Your task to perform on an android device: Add "usb-b" to the cart on bestbuy.com, then select checkout. Image 0: 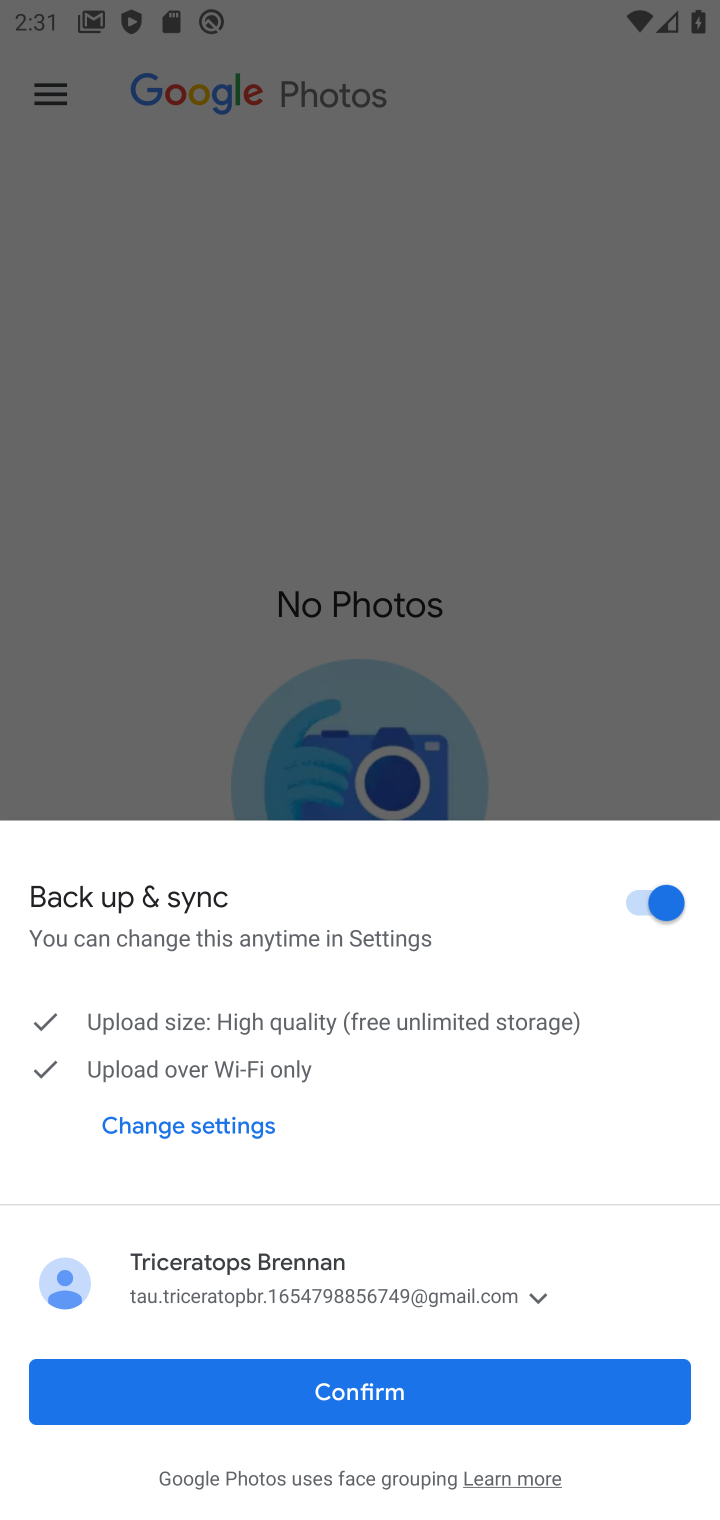
Step 0: press home button
Your task to perform on an android device: Add "usb-b" to the cart on bestbuy.com, then select checkout. Image 1: 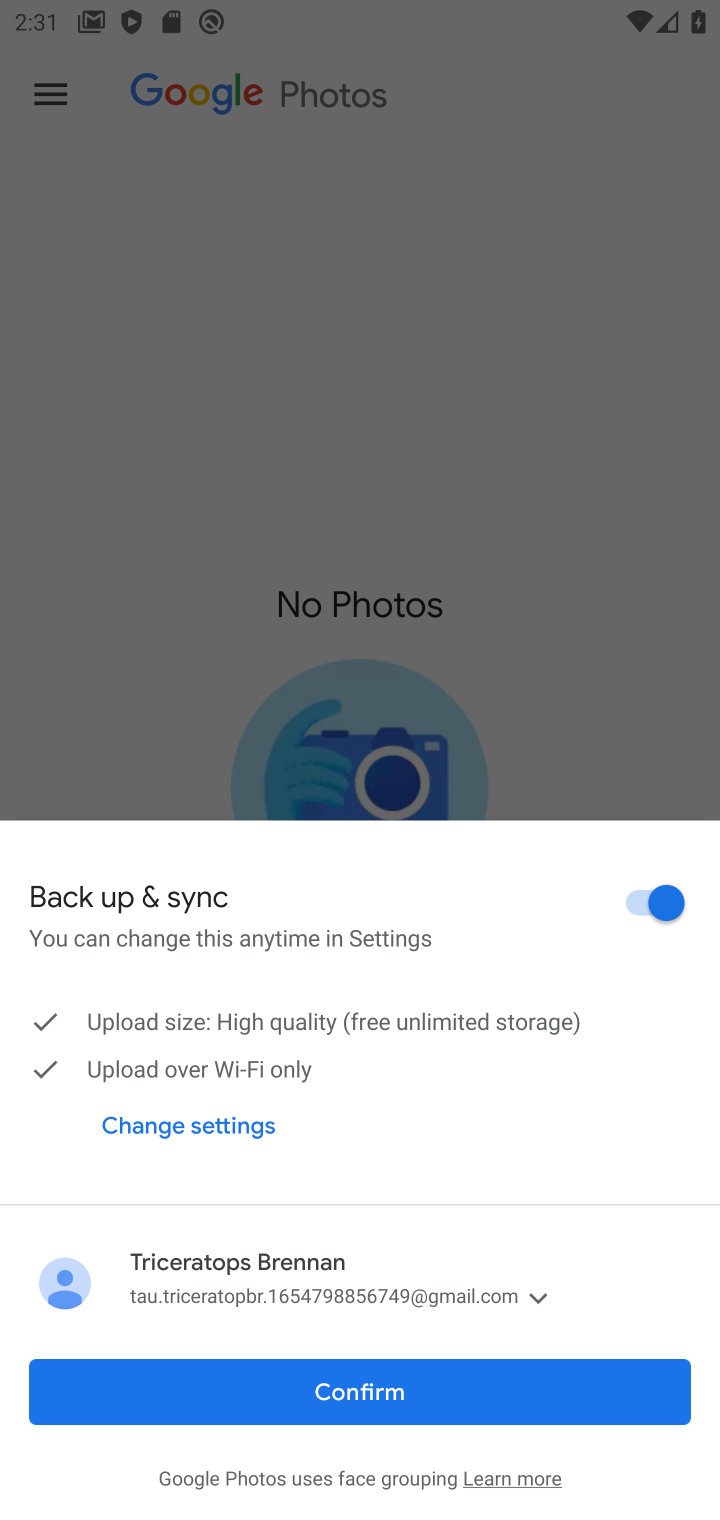
Step 1: press home button
Your task to perform on an android device: Add "usb-b" to the cart on bestbuy.com, then select checkout. Image 2: 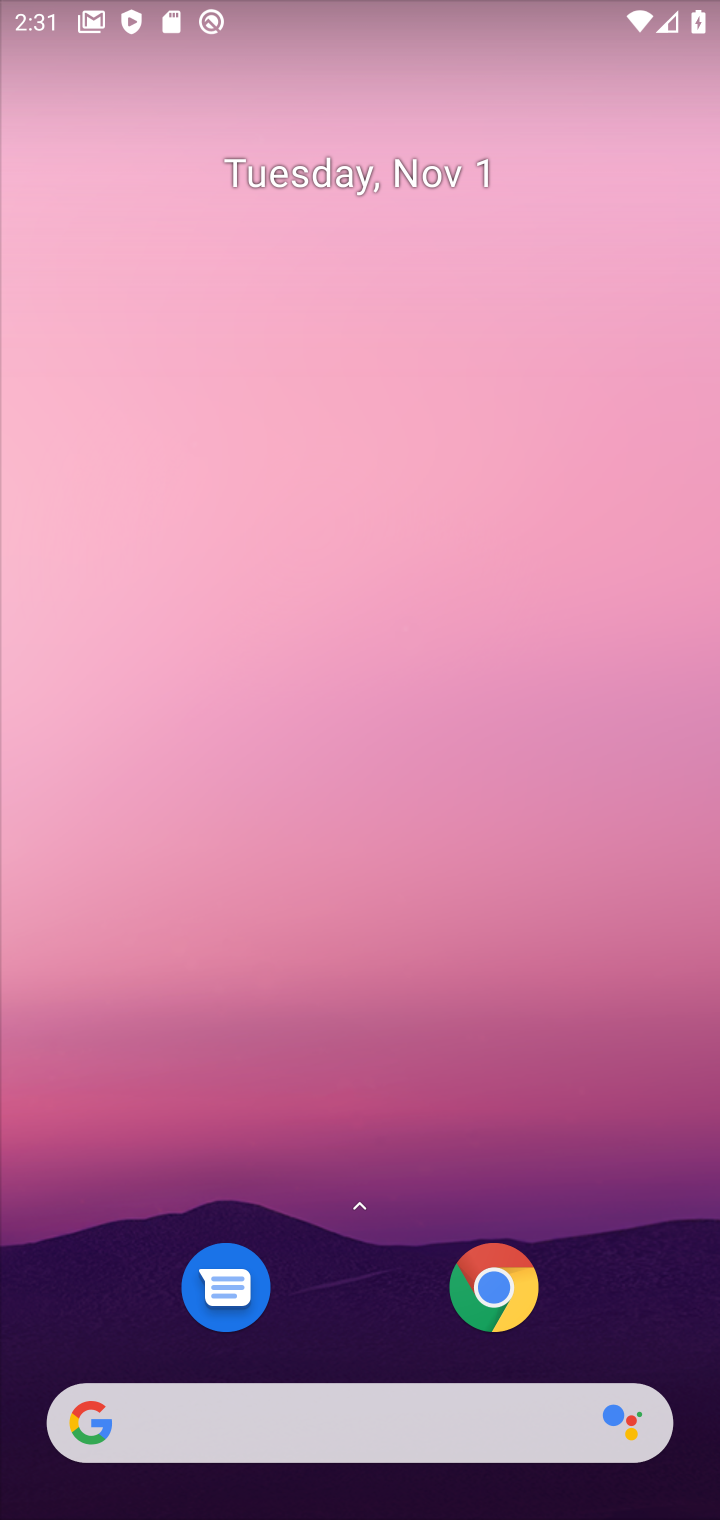
Step 2: drag from (335, 1259) to (411, 314)
Your task to perform on an android device: Add "usb-b" to the cart on bestbuy.com, then select checkout. Image 3: 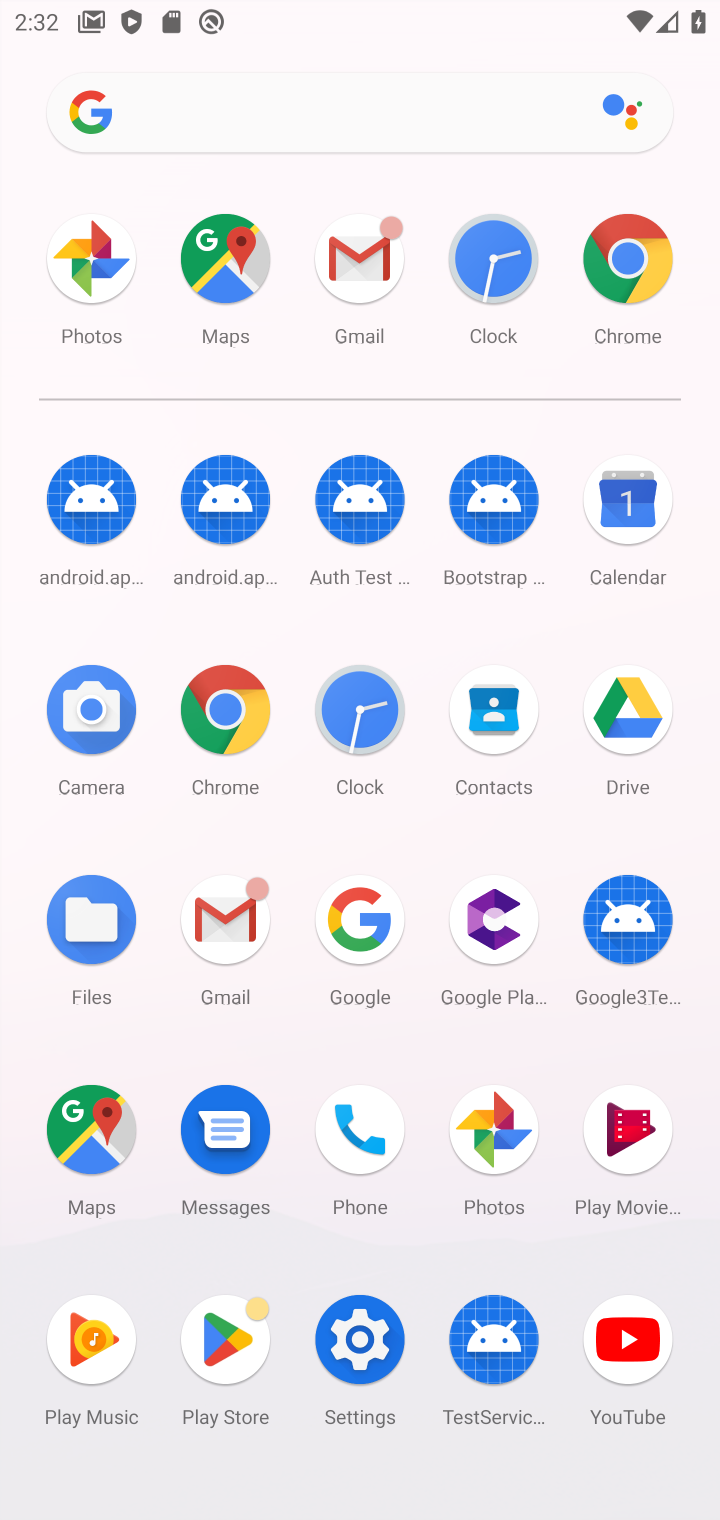
Step 3: click (235, 716)
Your task to perform on an android device: Add "usb-b" to the cart on bestbuy.com, then select checkout. Image 4: 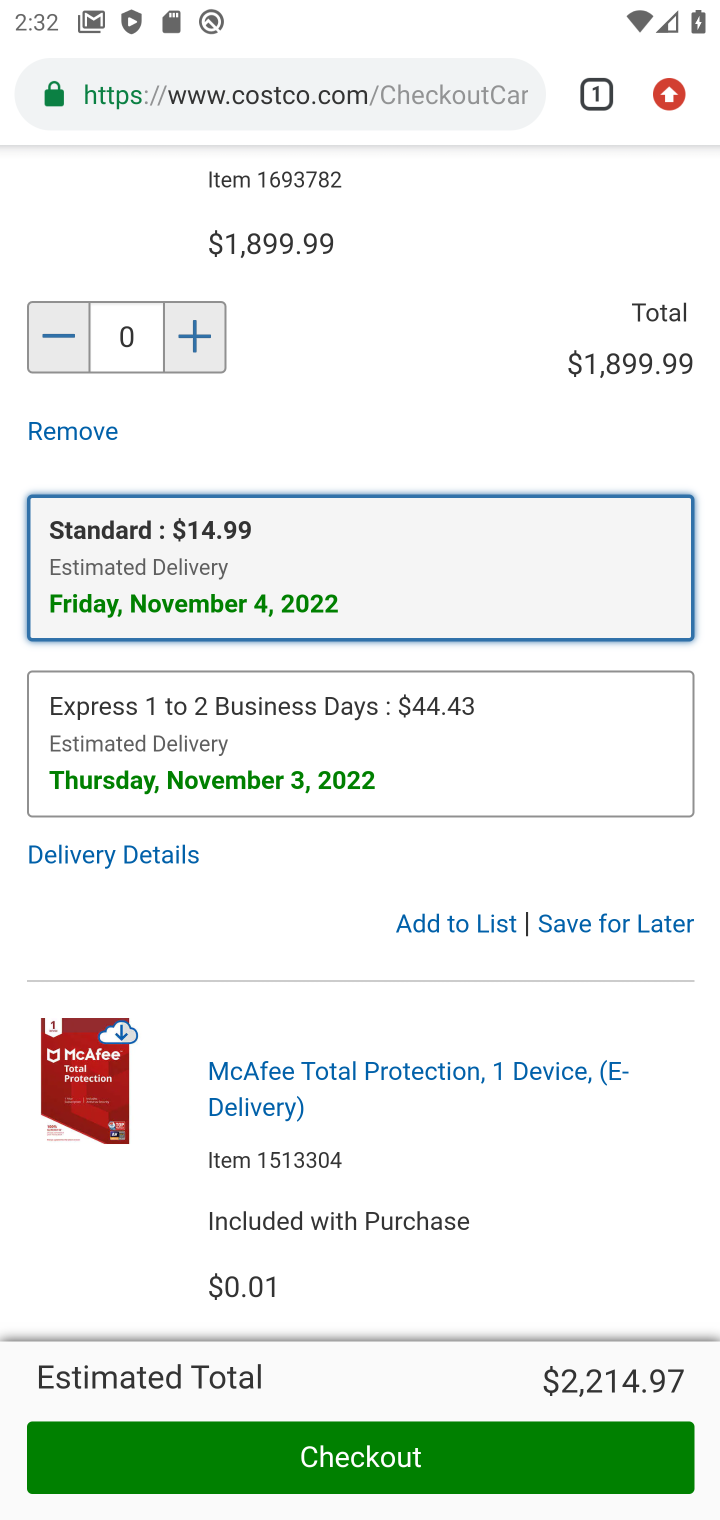
Step 4: press home button
Your task to perform on an android device: Add "usb-b" to the cart on bestbuy.com, then select checkout. Image 5: 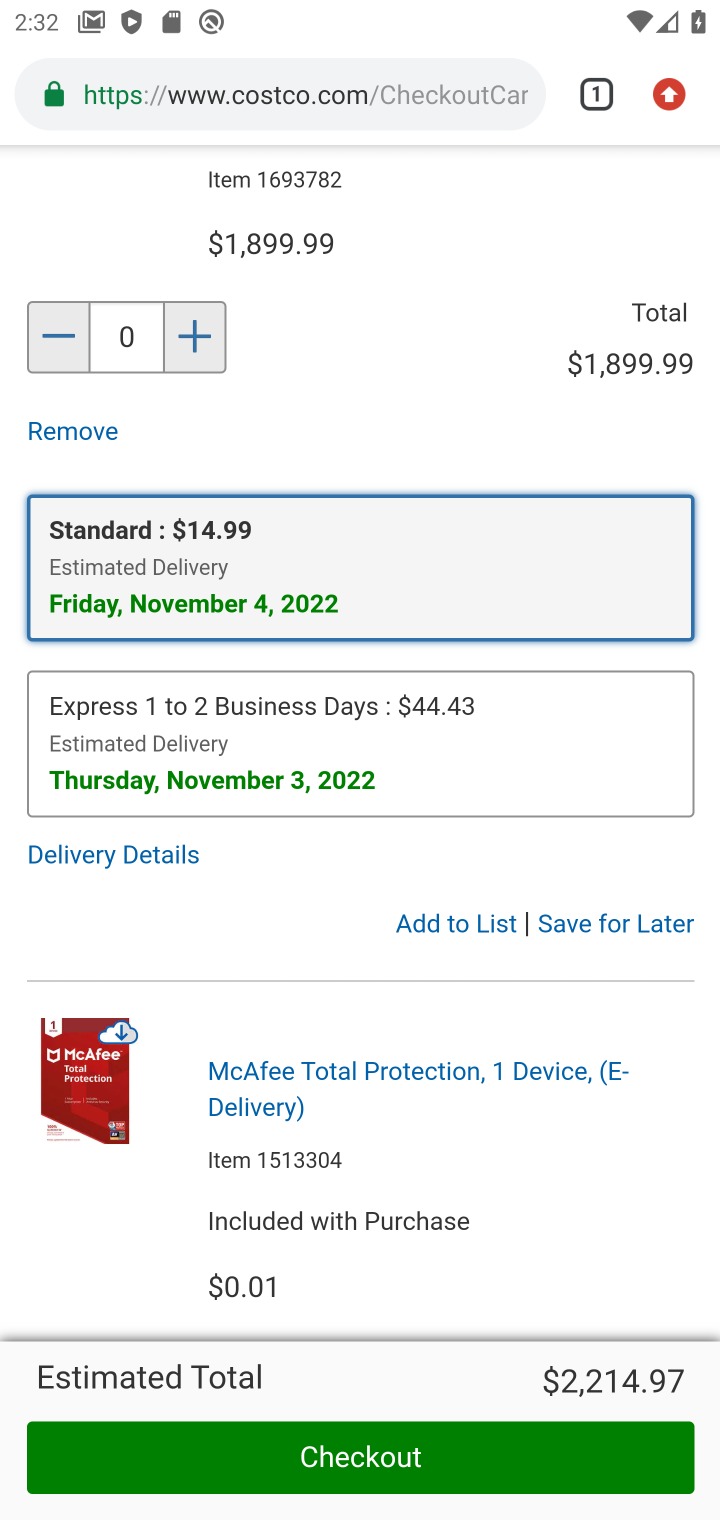
Step 5: press home button
Your task to perform on an android device: Add "usb-b" to the cart on bestbuy.com, then select checkout. Image 6: 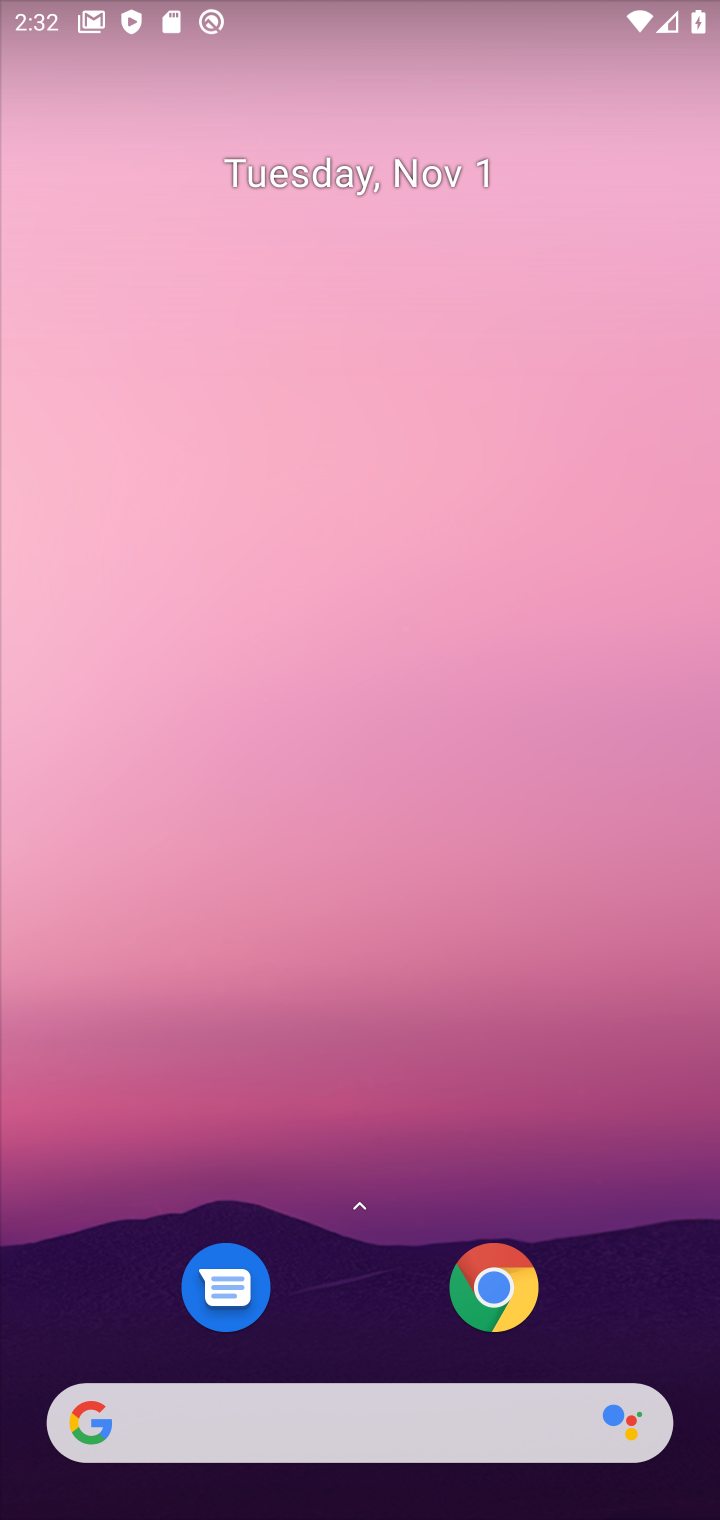
Step 6: drag from (351, 1061) to (410, 298)
Your task to perform on an android device: Add "usb-b" to the cart on bestbuy.com, then select checkout. Image 7: 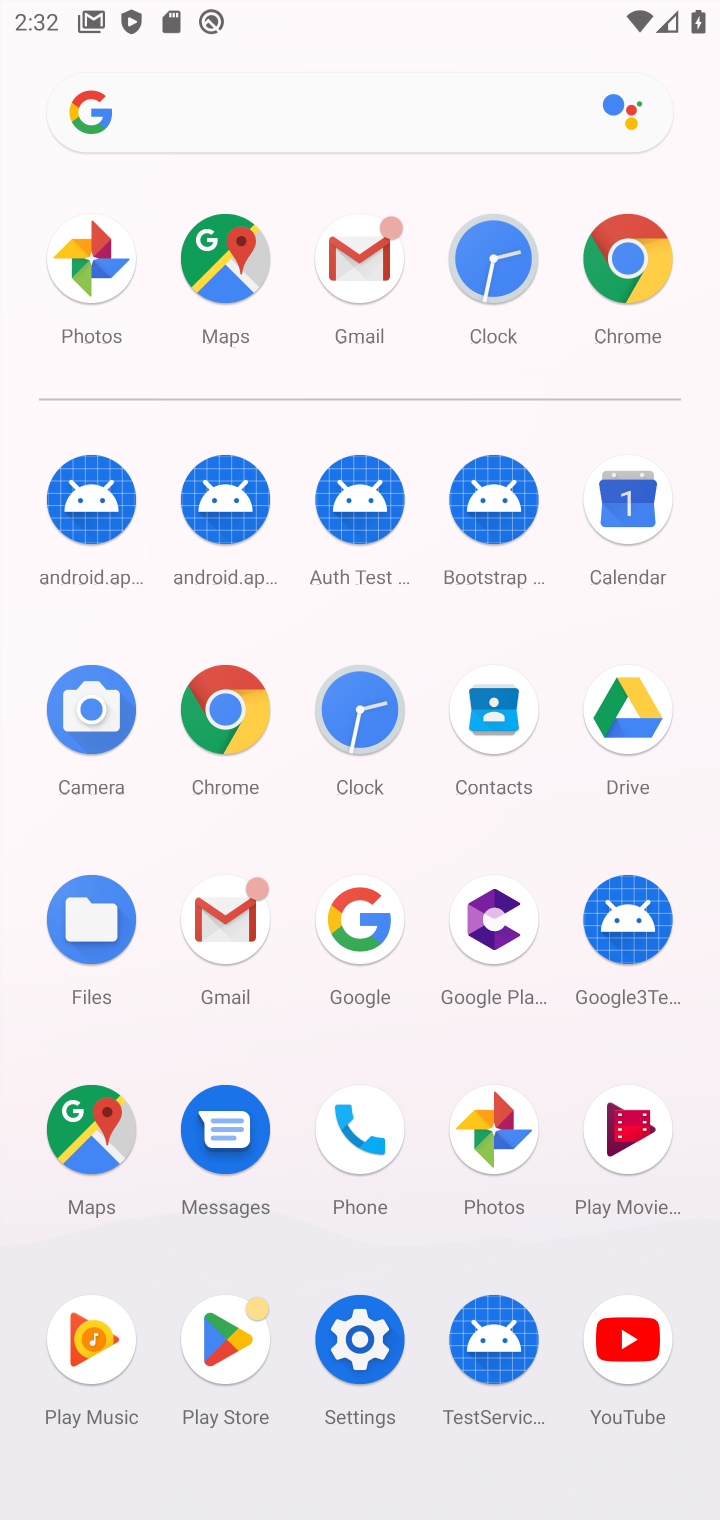
Step 7: click (219, 712)
Your task to perform on an android device: Add "usb-b" to the cart on bestbuy.com, then select checkout. Image 8: 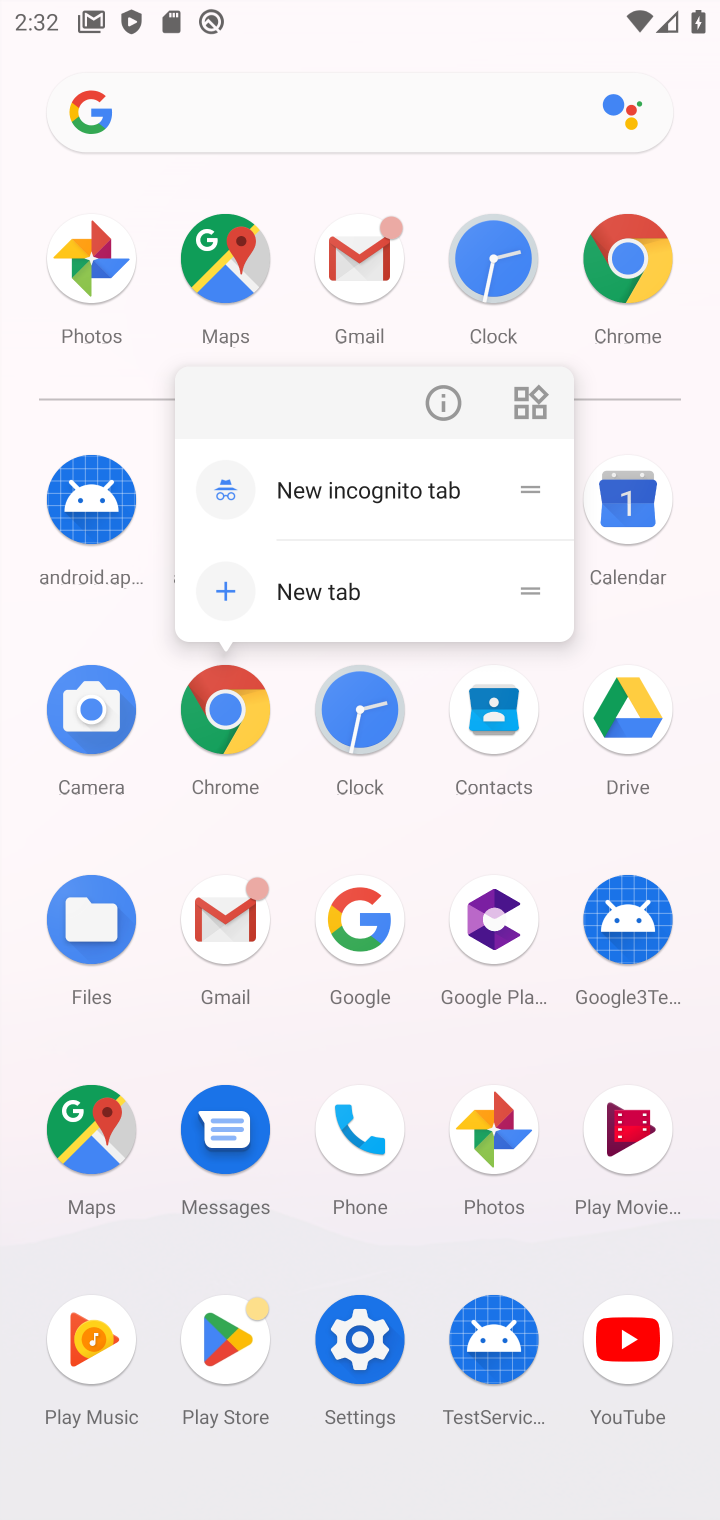
Step 8: click (226, 710)
Your task to perform on an android device: Add "usb-b" to the cart on bestbuy.com, then select checkout. Image 9: 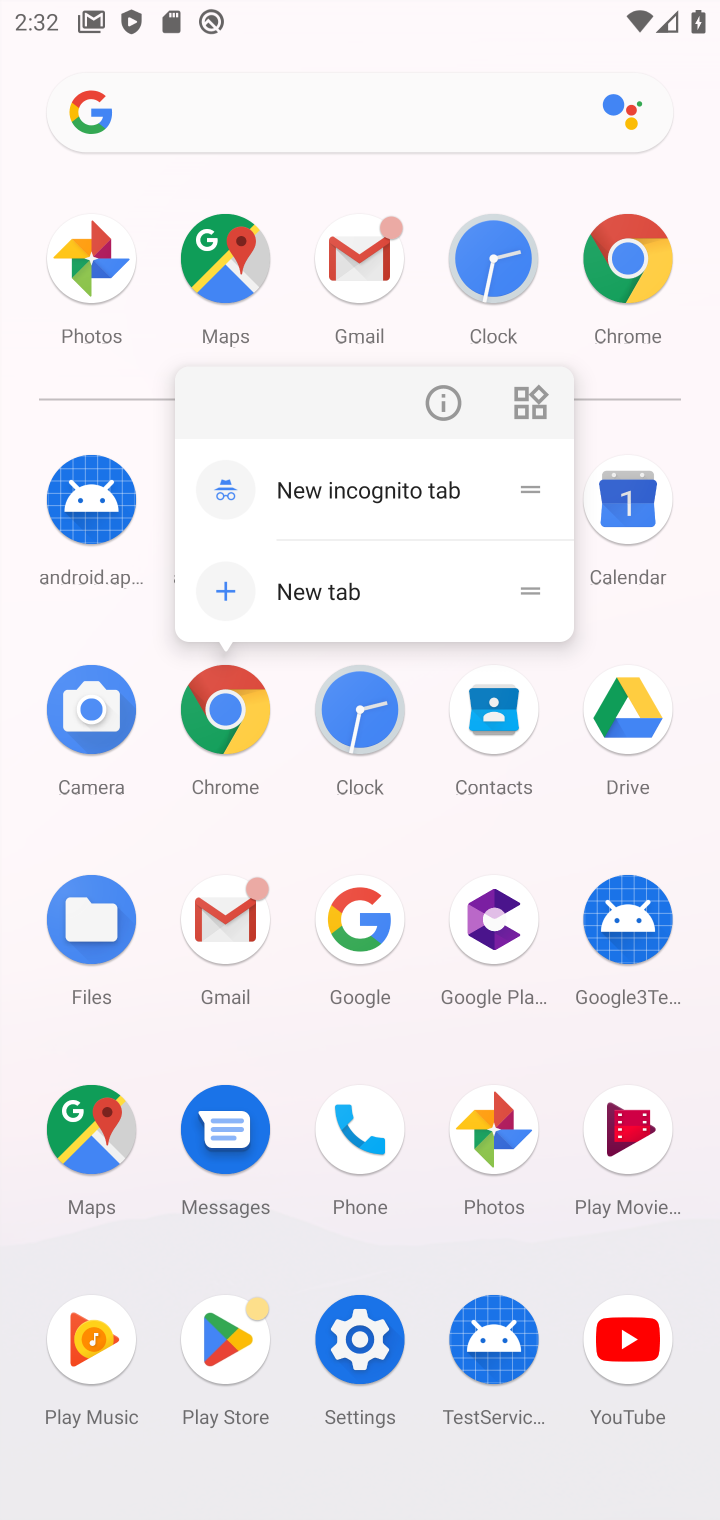
Step 9: click (226, 710)
Your task to perform on an android device: Add "usb-b" to the cart on bestbuy.com, then select checkout. Image 10: 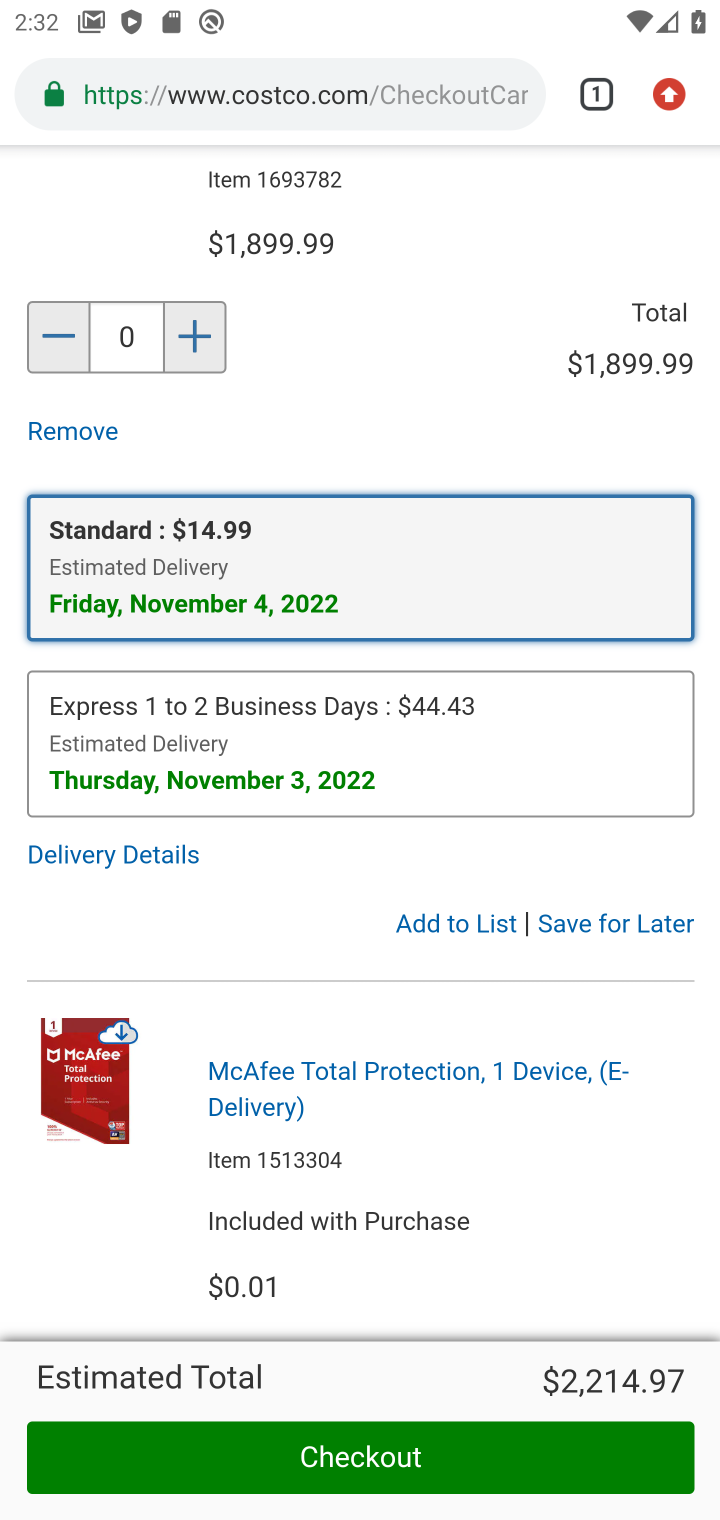
Step 10: click (358, 102)
Your task to perform on an android device: Add "usb-b" to the cart on bestbuy.com, then select checkout. Image 11: 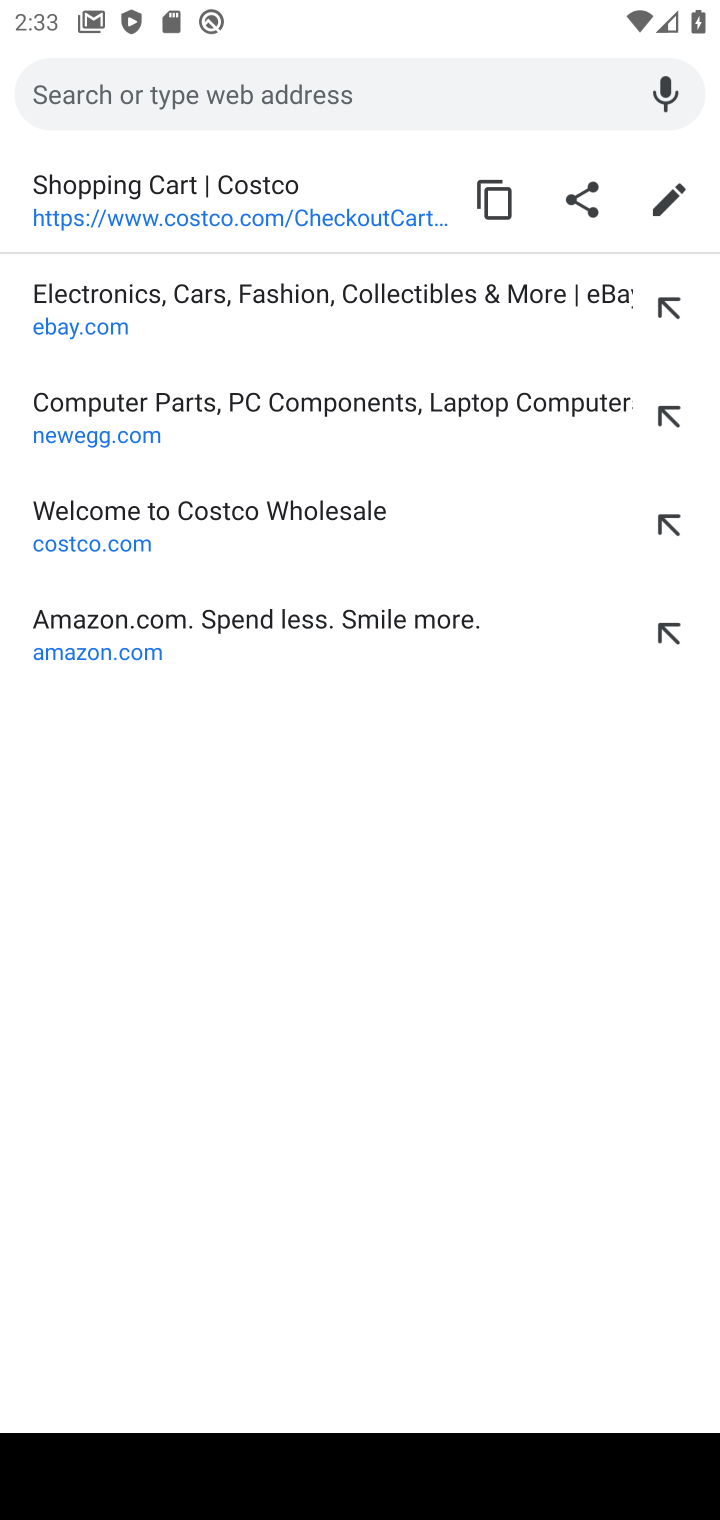
Step 11: type "bestbuy.com"
Your task to perform on an android device: Add "usb-b" to the cart on bestbuy.com, then select checkout. Image 12: 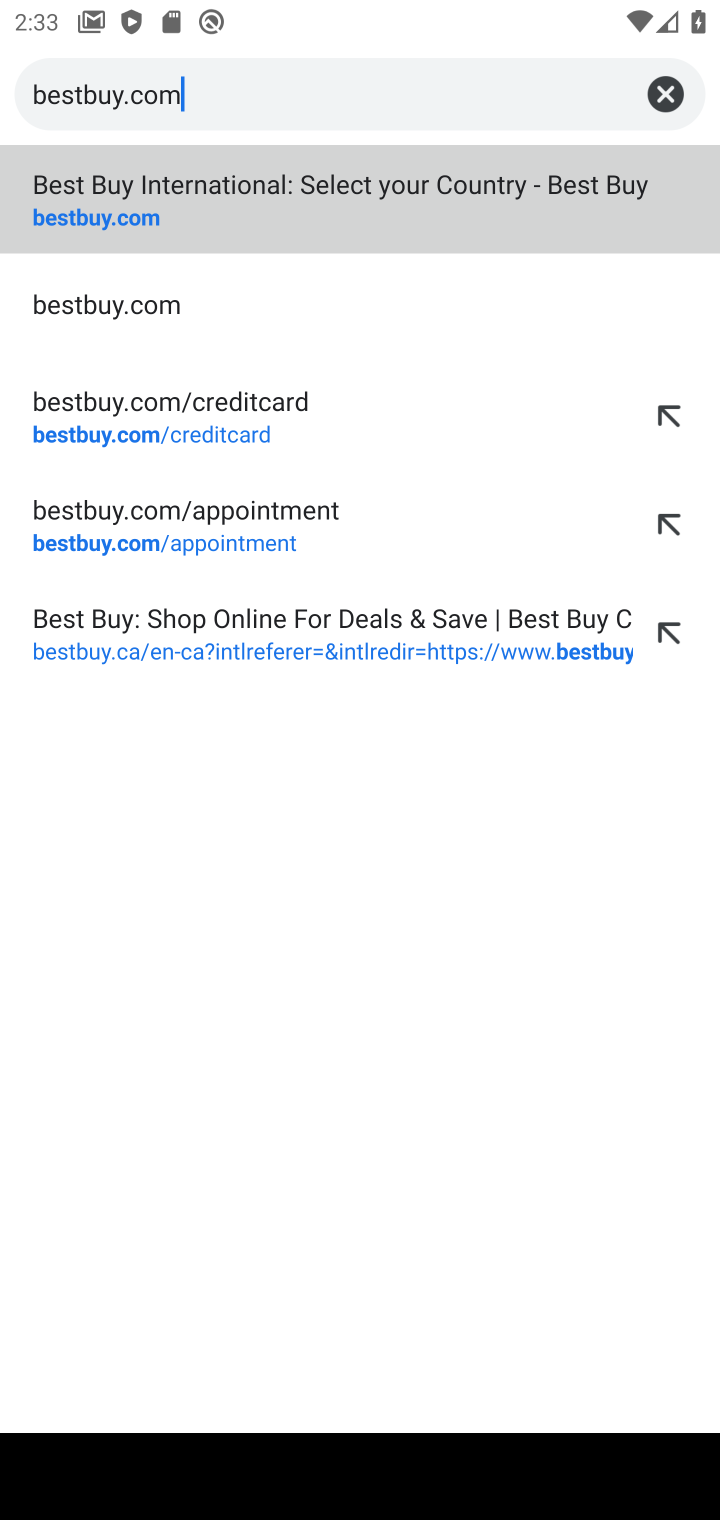
Step 12: press enter
Your task to perform on an android device: Add "usb-b" to the cart on bestbuy.com, then select checkout. Image 13: 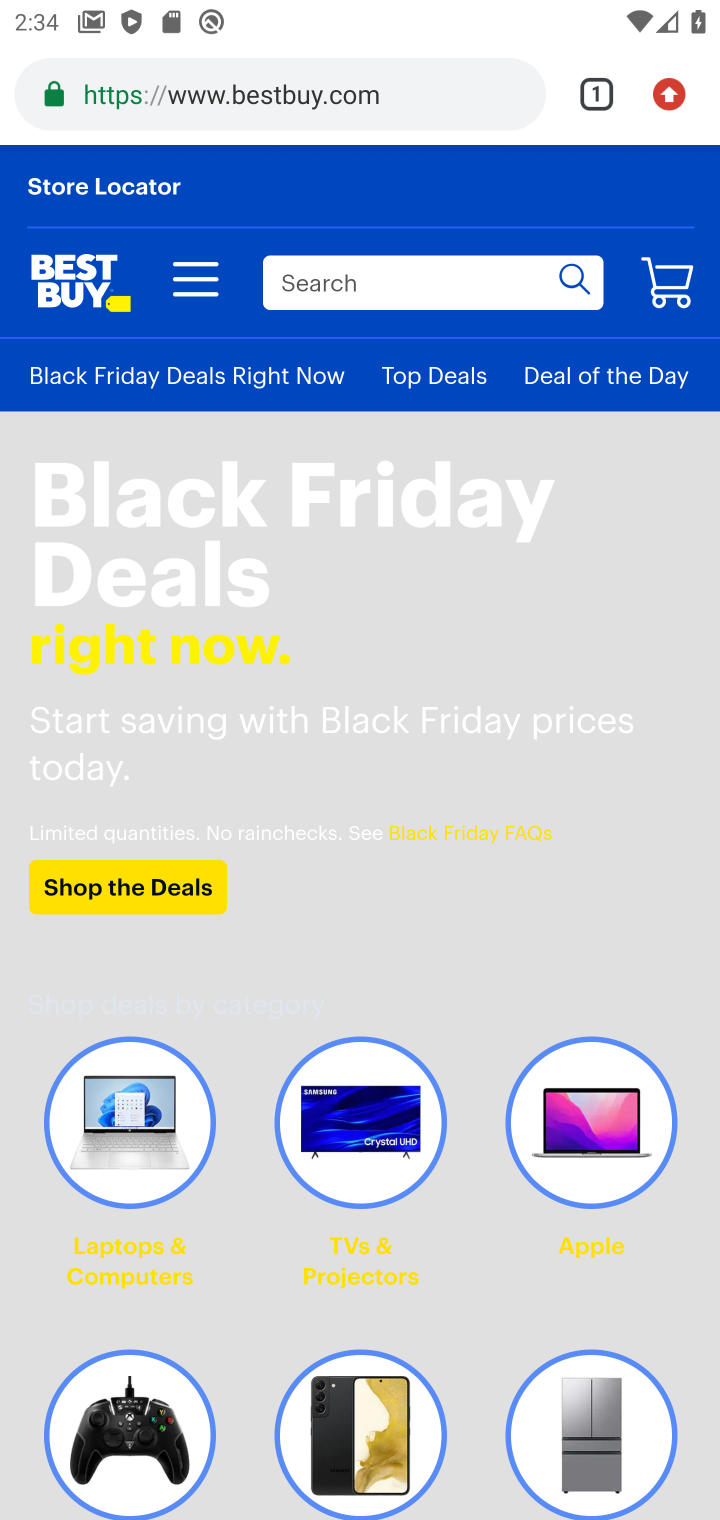
Step 13: click (426, 274)
Your task to perform on an android device: Add "usb-b" to the cart on bestbuy.com, then select checkout. Image 14: 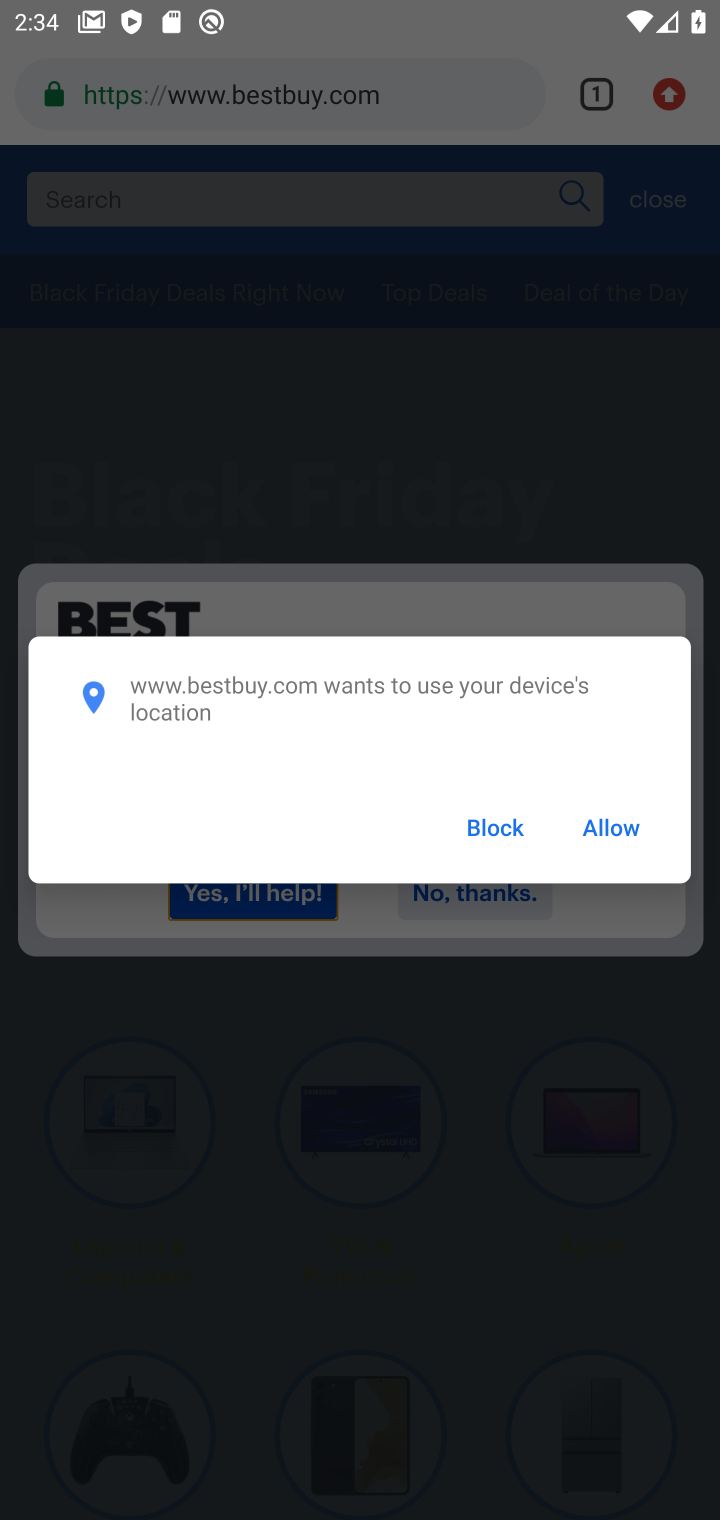
Step 14: type "usb-b"
Your task to perform on an android device: Add "usb-b" to the cart on bestbuy.com, then select checkout. Image 15: 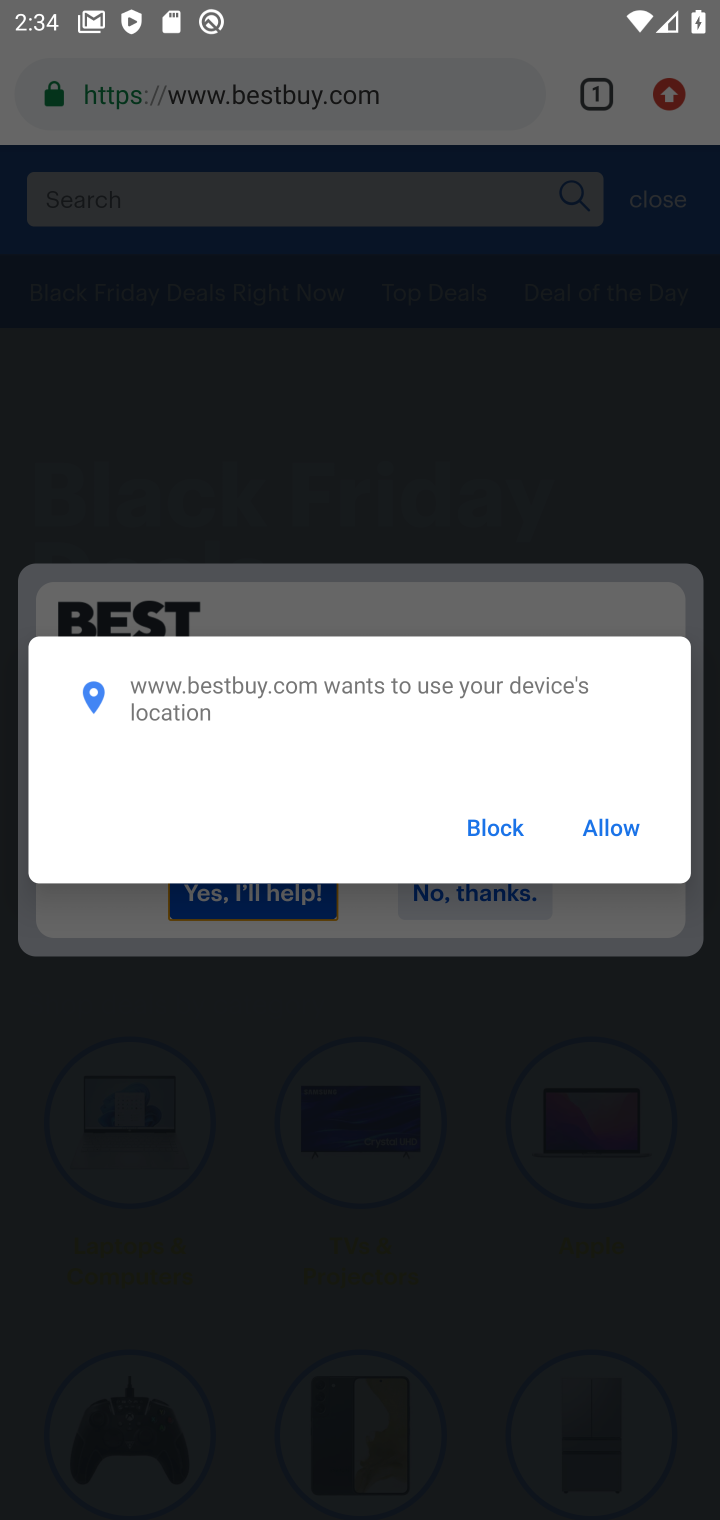
Step 15: click (480, 818)
Your task to perform on an android device: Add "usb-b" to the cart on bestbuy.com, then select checkout. Image 16: 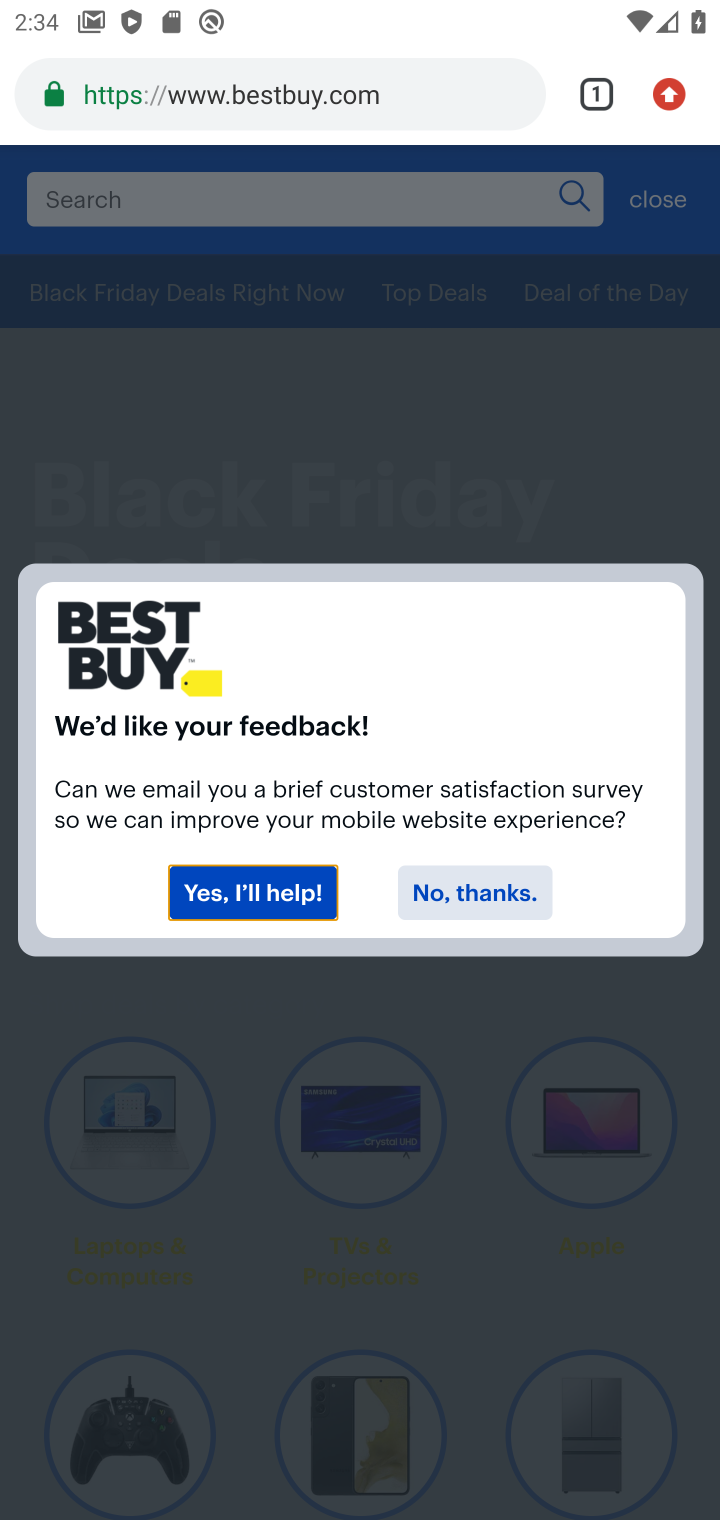
Step 16: click (304, 201)
Your task to perform on an android device: Add "usb-b" to the cart on bestbuy.com, then select checkout. Image 17: 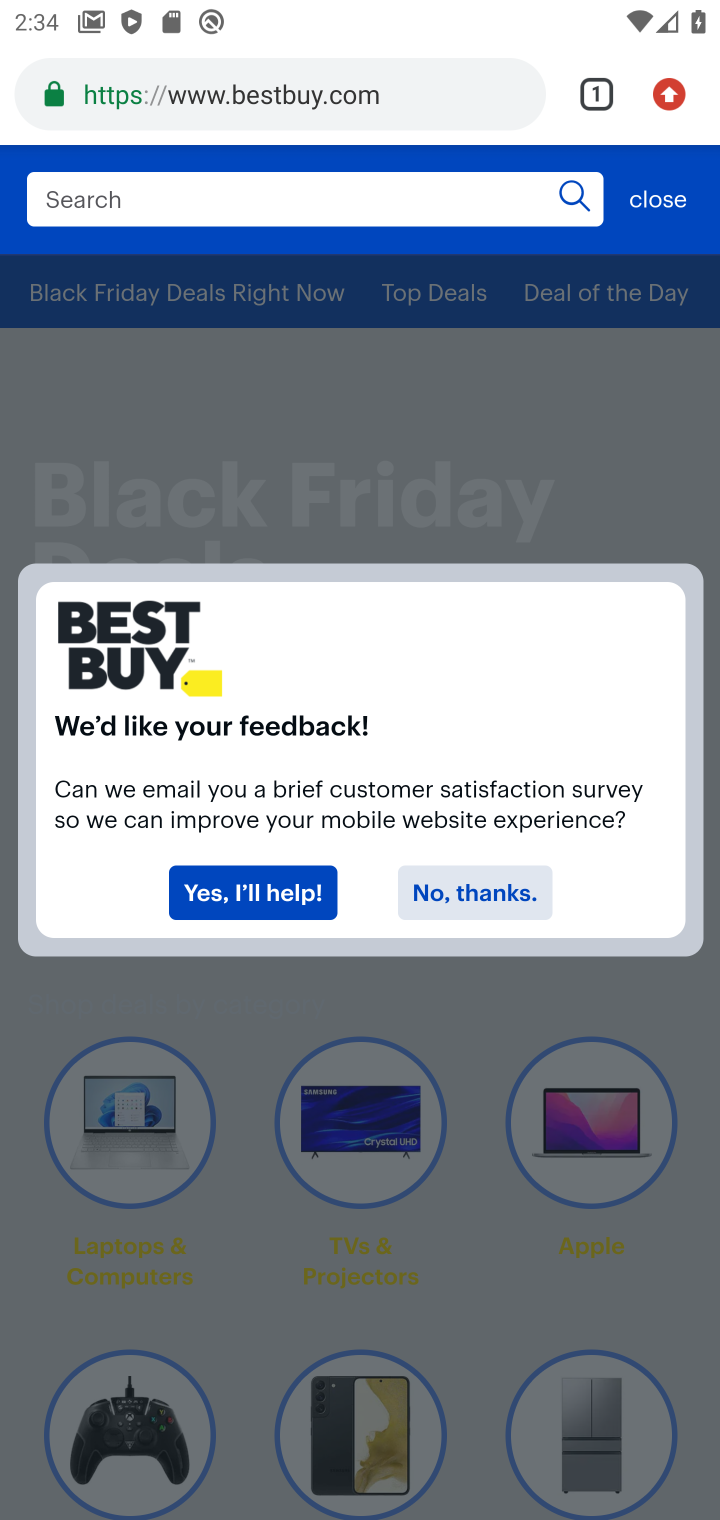
Step 17: click (509, 903)
Your task to perform on an android device: Add "usb-b" to the cart on bestbuy.com, then select checkout. Image 18: 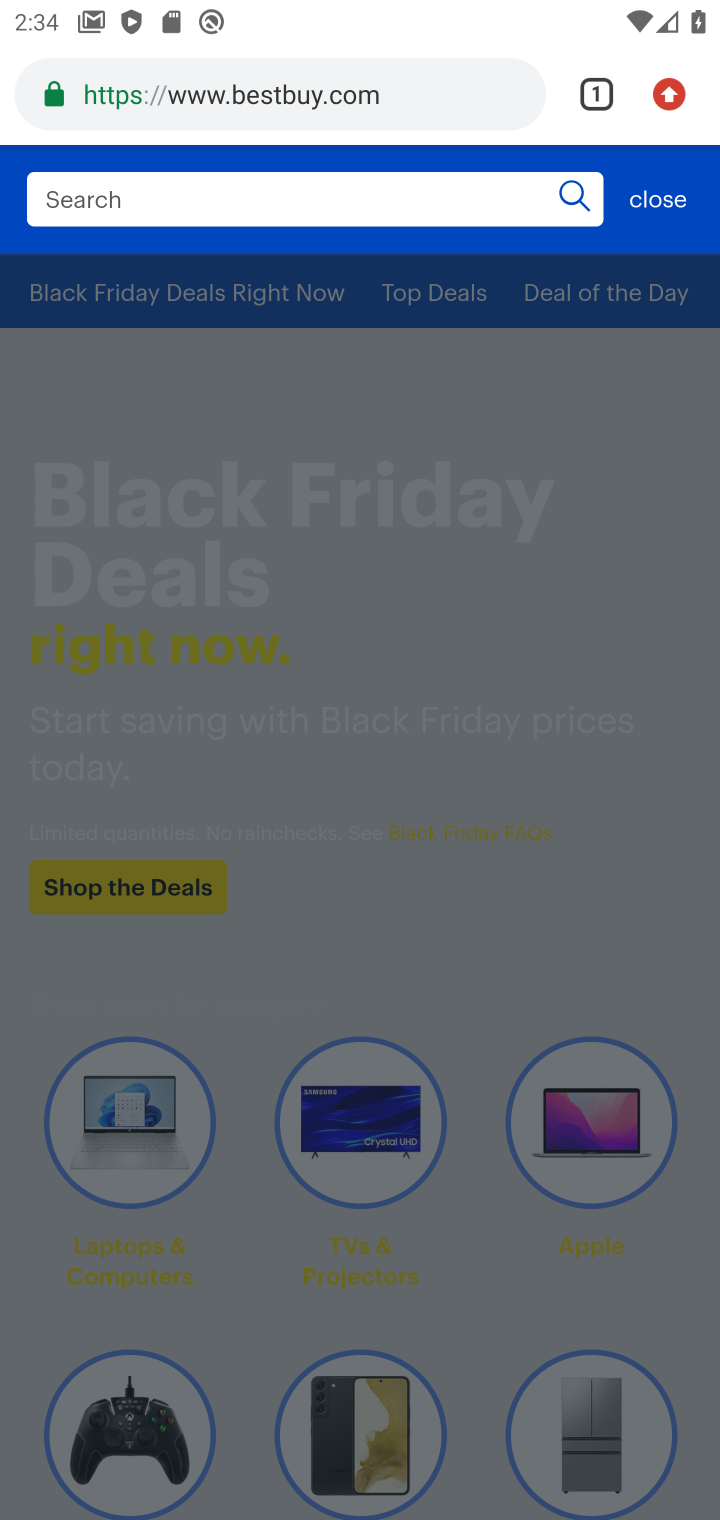
Step 18: click (368, 200)
Your task to perform on an android device: Add "usb-b" to the cart on bestbuy.com, then select checkout. Image 19: 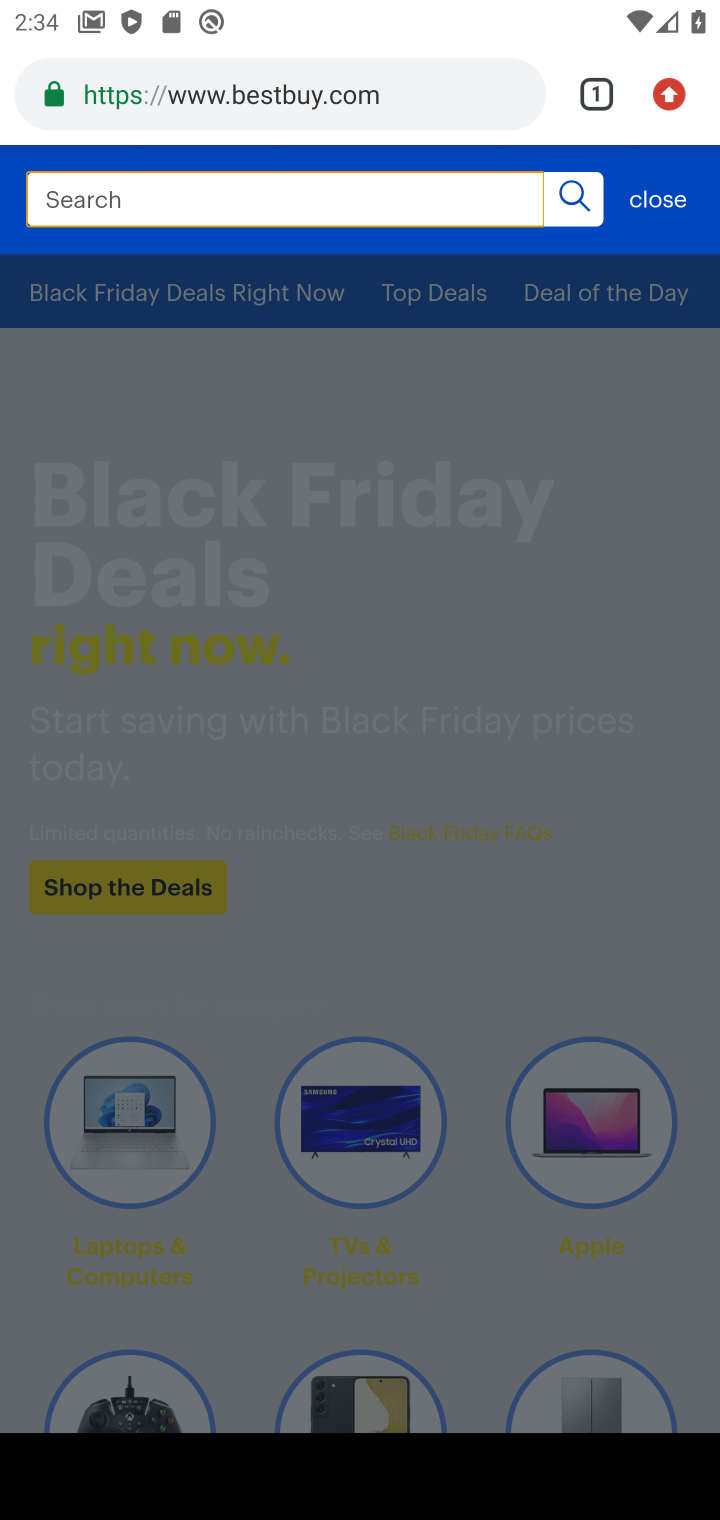
Step 19: type "usb-b"
Your task to perform on an android device: Add "usb-b" to the cart on bestbuy.com, then select checkout. Image 20: 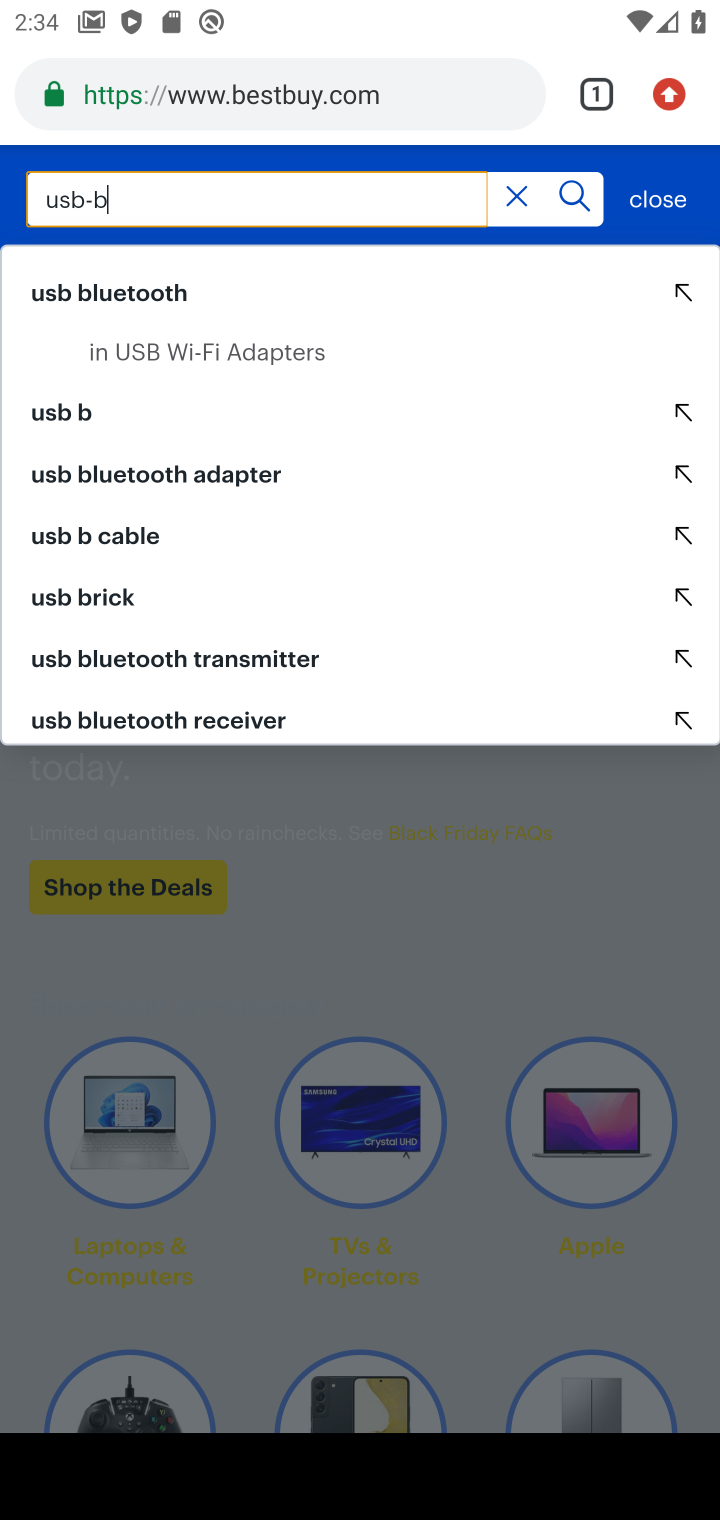
Step 20: press enter
Your task to perform on an android device: Add "usb-b" to the cart on bestbuy.com, then select checkout. Image 21: 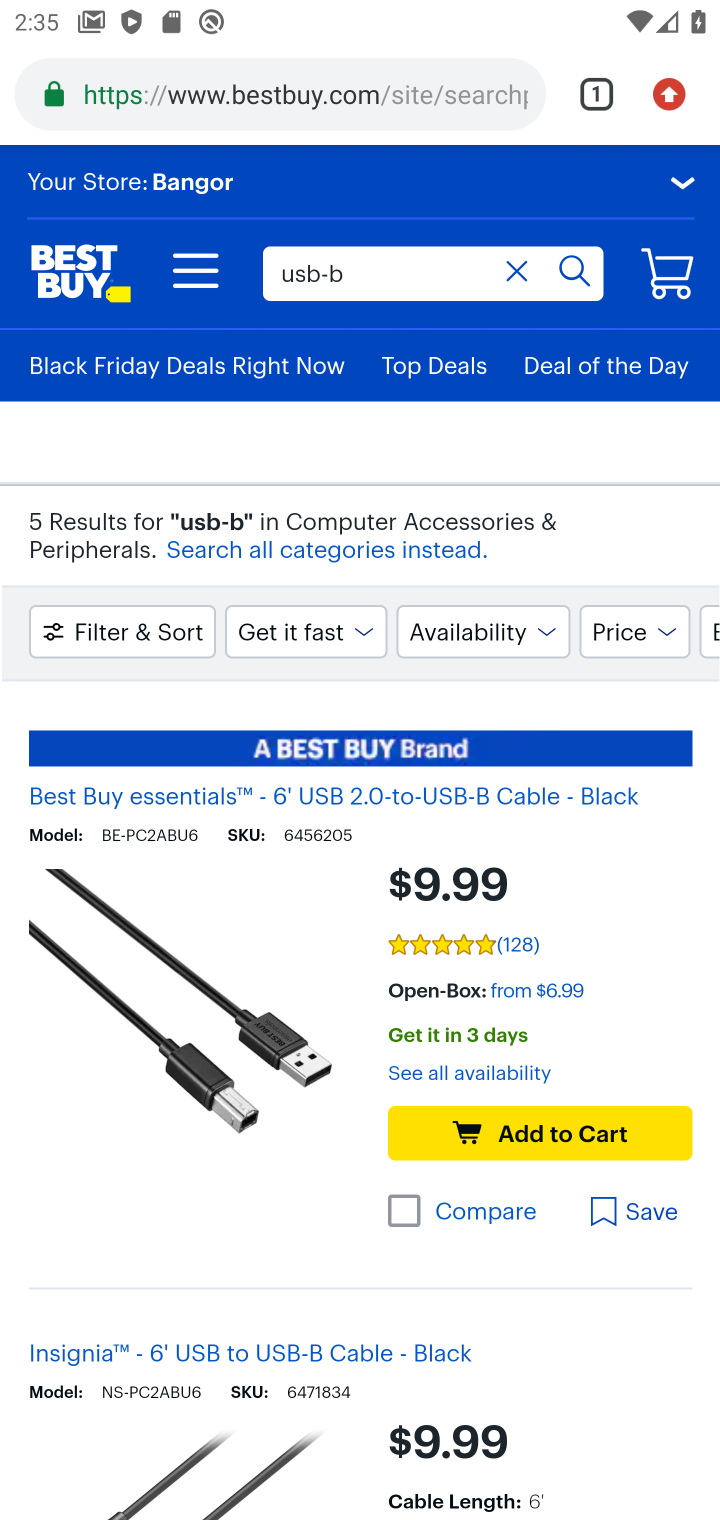
Step 21: drag from (450, 861) to (652, 118)
Your task to perform on an android device: Add "usb-b" to the cart on bestbuy.com, then select checkout. Image 22: 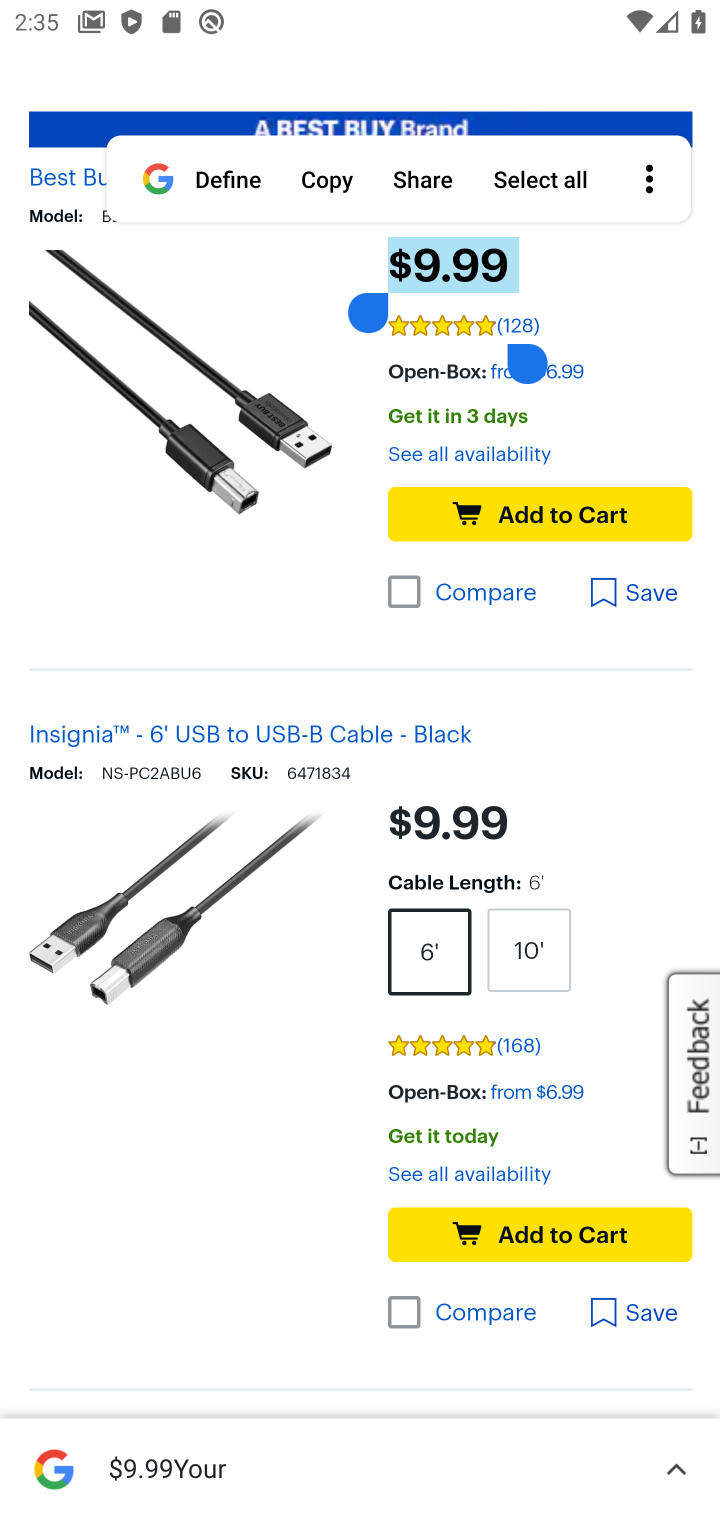
Step 22: drag from (274, 584) to (301, 1305)
Your task to perform on an android device: Add "usb-b" to the cart on bestbuy.com, then select checkout. Image 23: 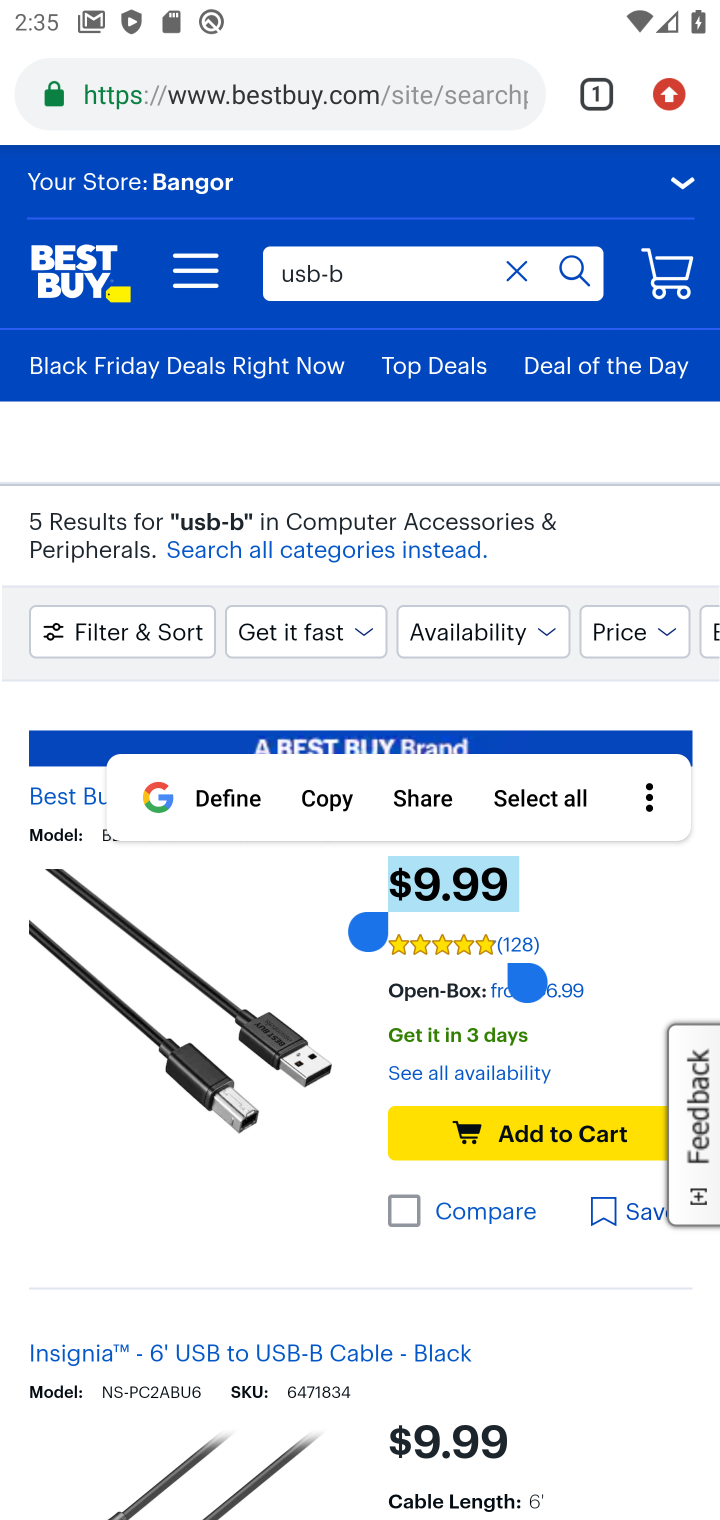
Step 23: click (630, 453)
Your task to perform on an android device: Add "usb-b" to the cart on bestbuy.com, then select checkout. Image 24: 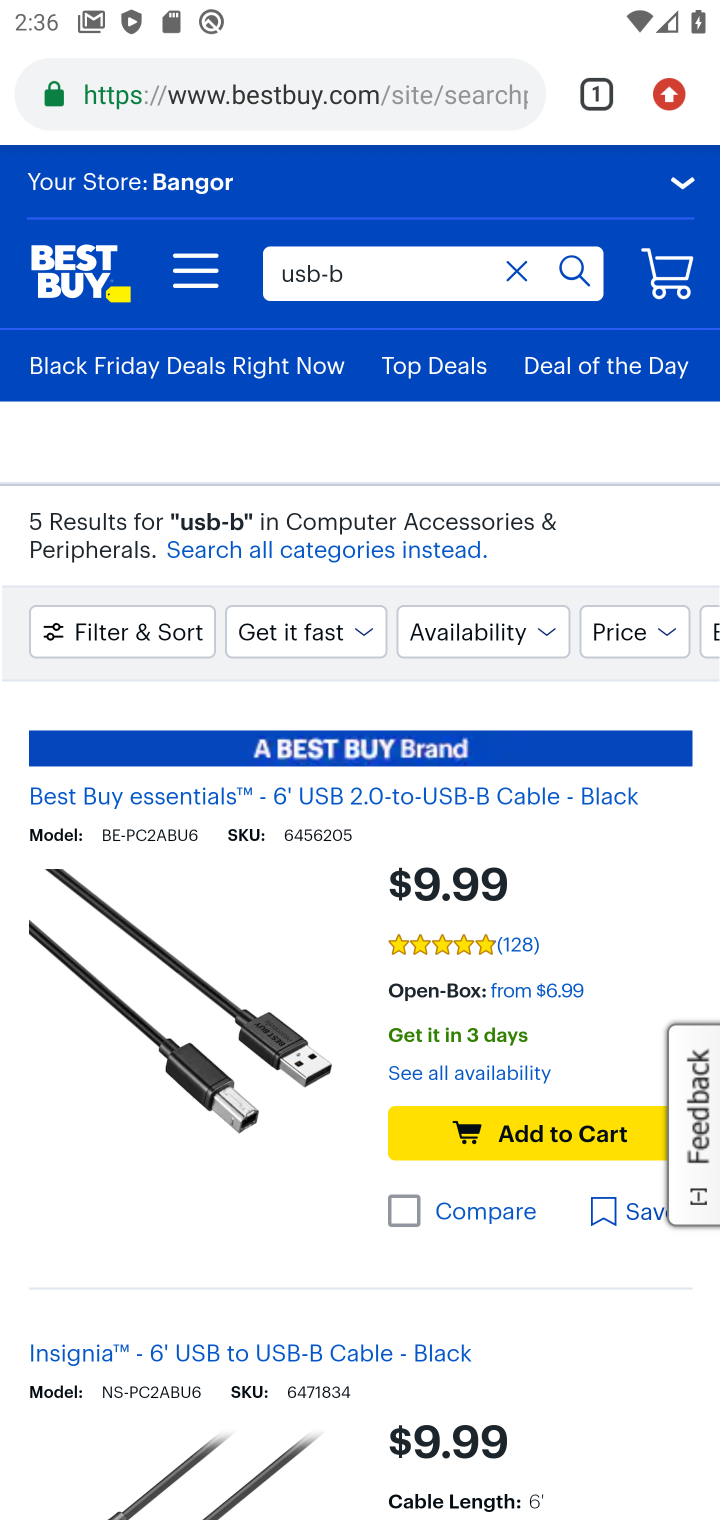
Step 24: drag from (250, 1086) to (270, 730)
Your task to perform on an android device: Add "usb-b" to the cart on bestbuy.com, then select checkout. Image 25: 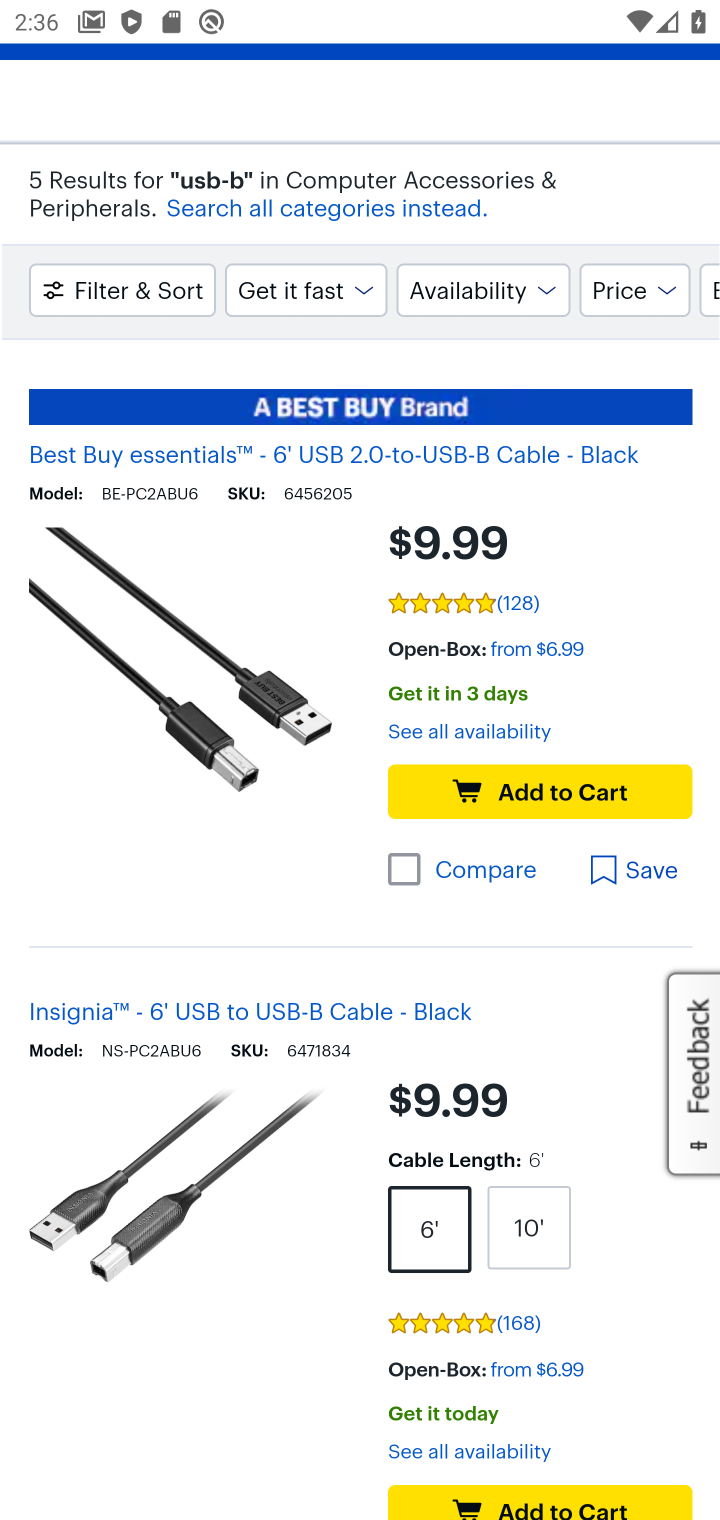
Step 25: click (542, 793)
Your task to perform on an android device: Add "usb-b" to the cart on bestbuy.com, then select checkout. Image 26: 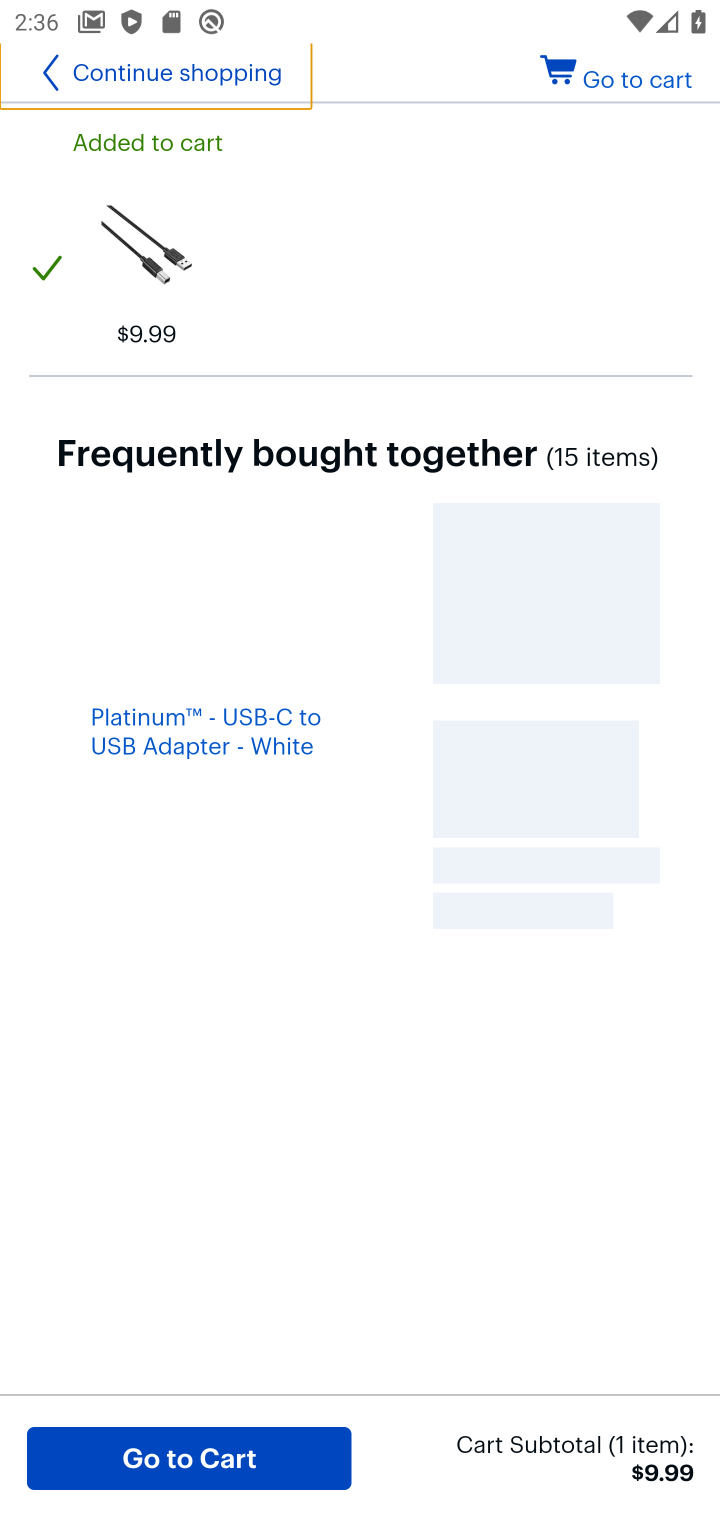
Step 26: click (220, 1465)
Your task to perform on an android device: Add "usb-b" to the cart on bestbuy.com, then select checkout. Image 27: 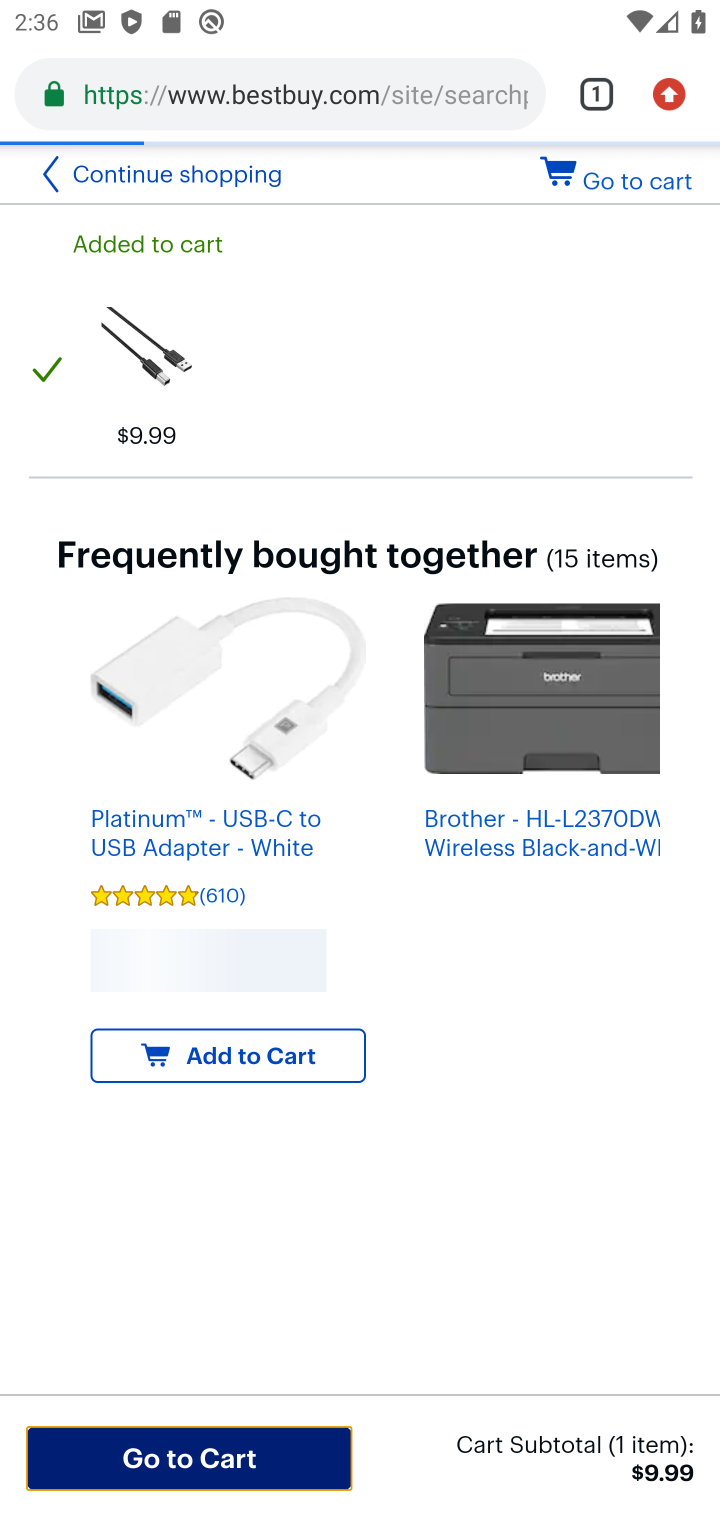
Step 27: click (219, 1461)
Your task to perform on an android device: Add "usb-b" to the cart on bestbuy.com, then select checkout. Image 28: 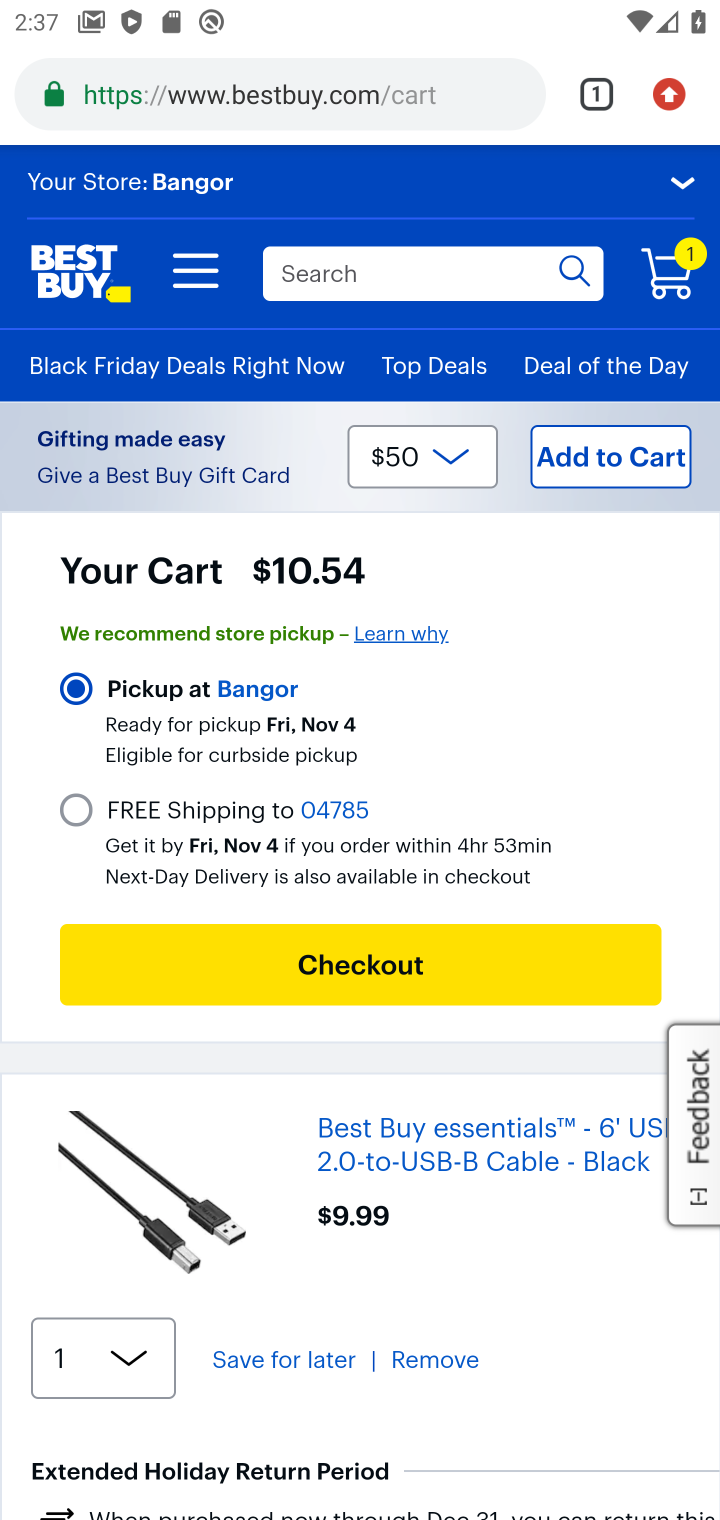
Step 28: click (441, 966)
Your task to perform on an android device: Add "usb-b" to the cart on bestbuy.com, then select checkout. Image 29: 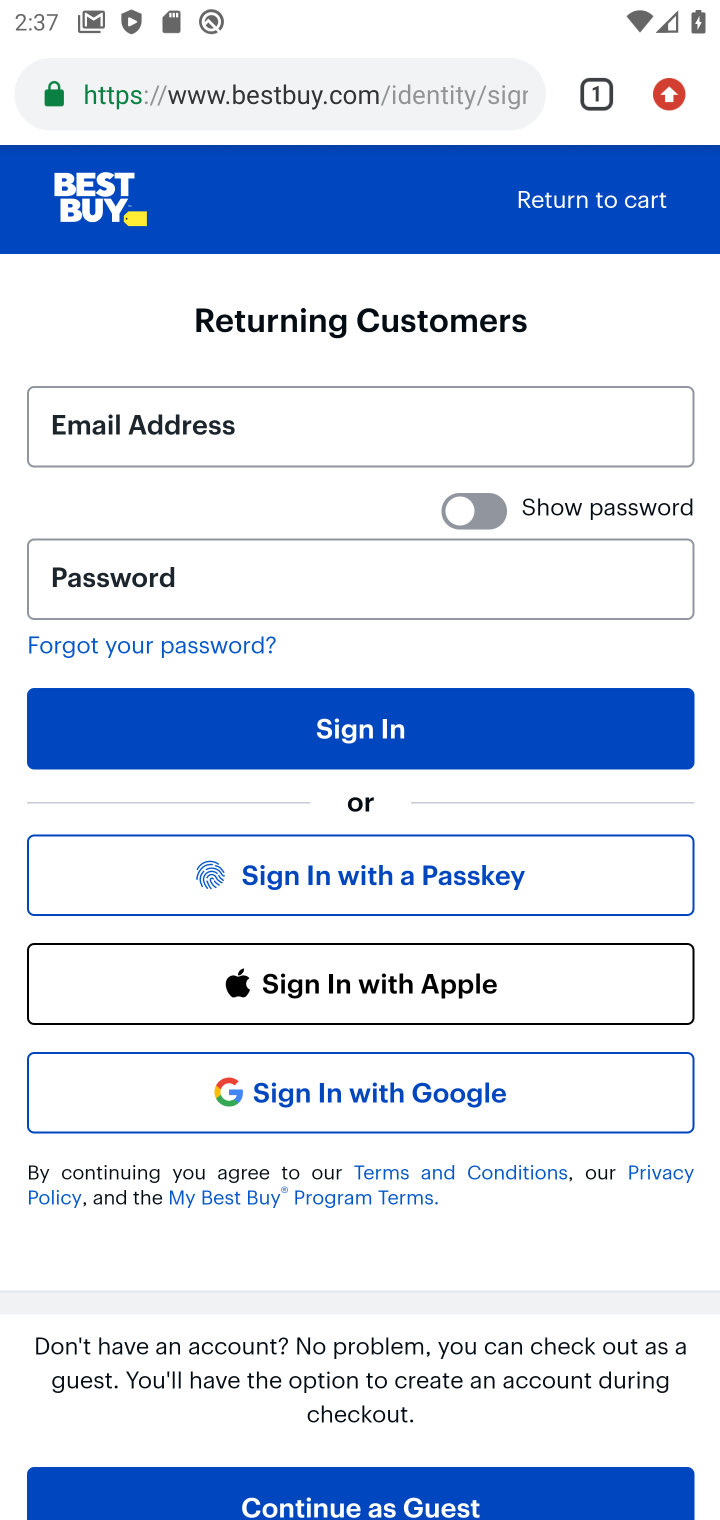
Step 29: task complete